Your task to perform on an android device: Open accessibility settings Image 0: 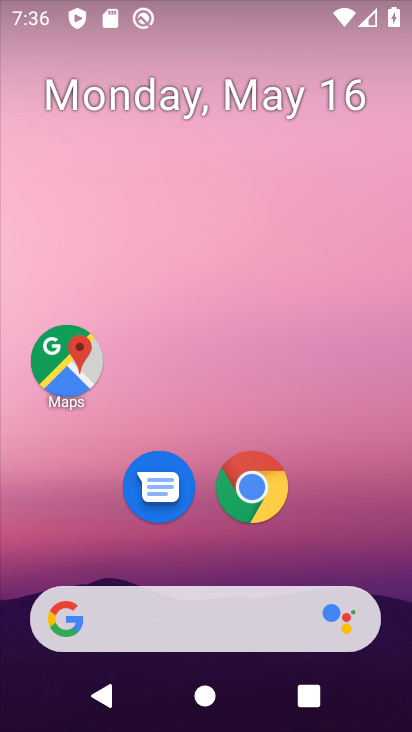
Step 0: drag from (285, 538) to (299, 110)
Your task to perform on an android device: Open accessibility settings Image 1: 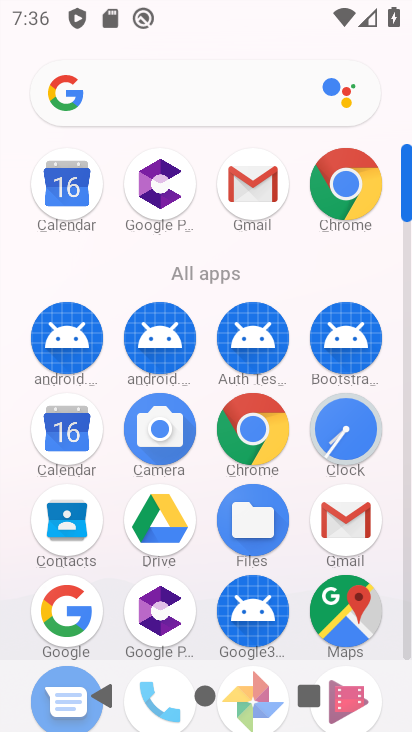
Step 1: drag from (196, 381) to (209, 148)
Your task to perform on an android device: Open accessibility settings Image 2: 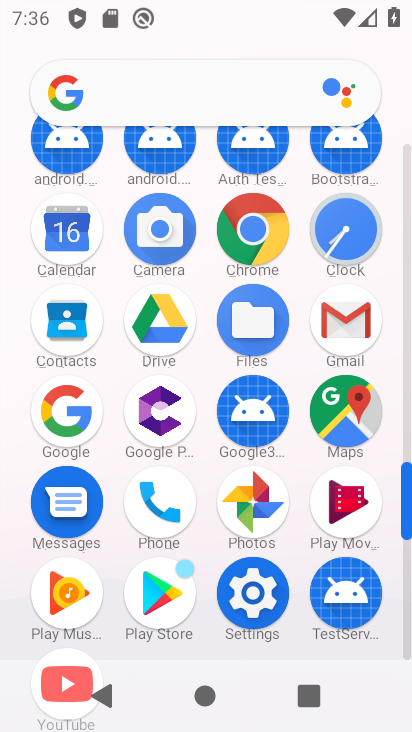
Step 2: click (244, 597)
Your task to perform on an android device: Open accessibility settings Image 3: 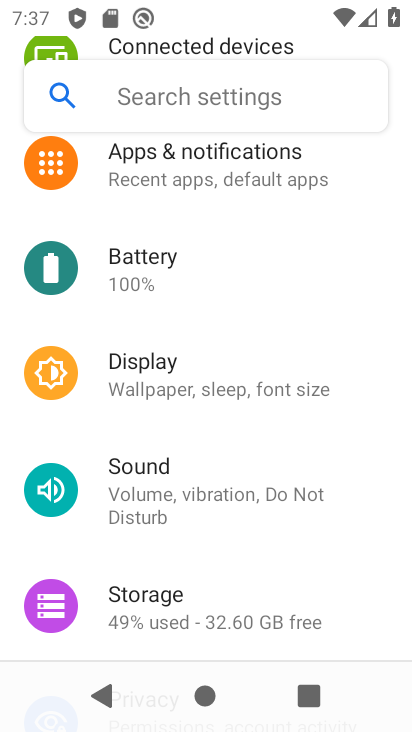
Step 3: drag from (243, 570) to (253, 215)
Your task to perform on an android device: Open accessibility settings Image 4: 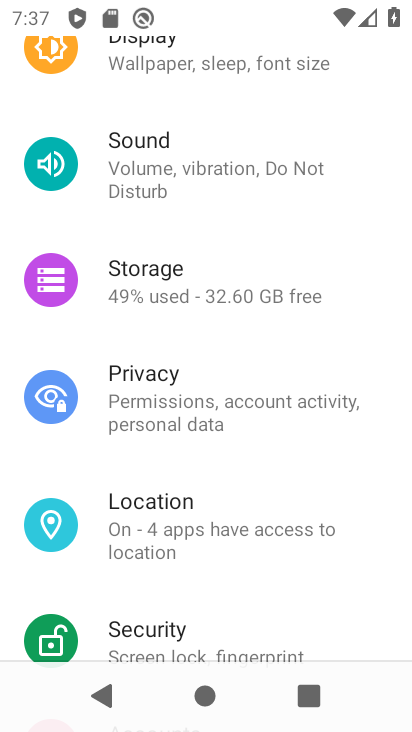
Step 4: drag from (234, 563) to (227, 173)
Your task to perform on an android device: Open accessibility settings Image 5: 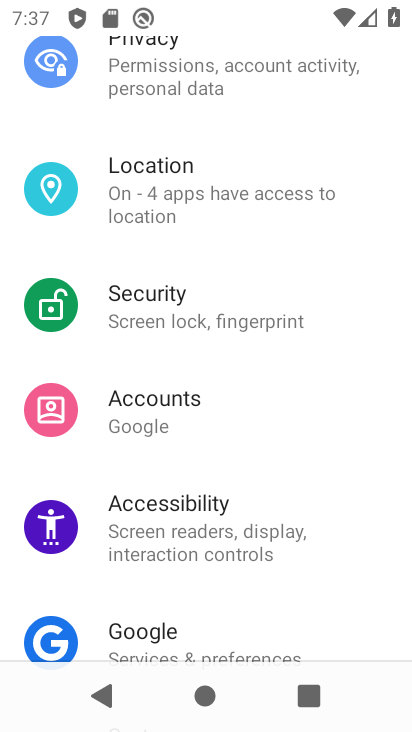
Step 5: click (182, 535)
Your task to perform on an android device: Open accessibility settings Image 6: 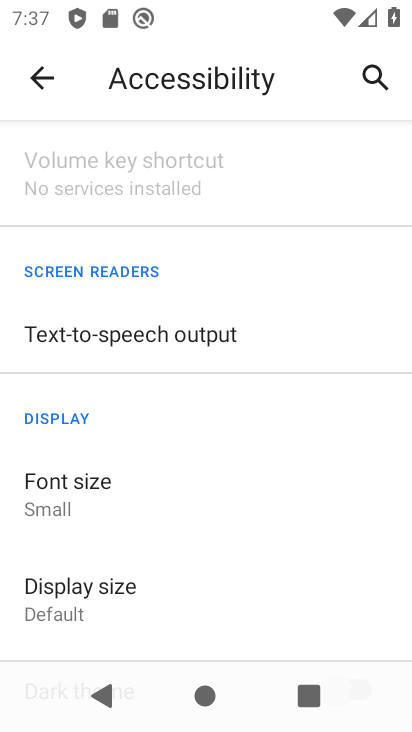
Step 6: task complete